Your task to perform on an android device: Open Google Image 0: 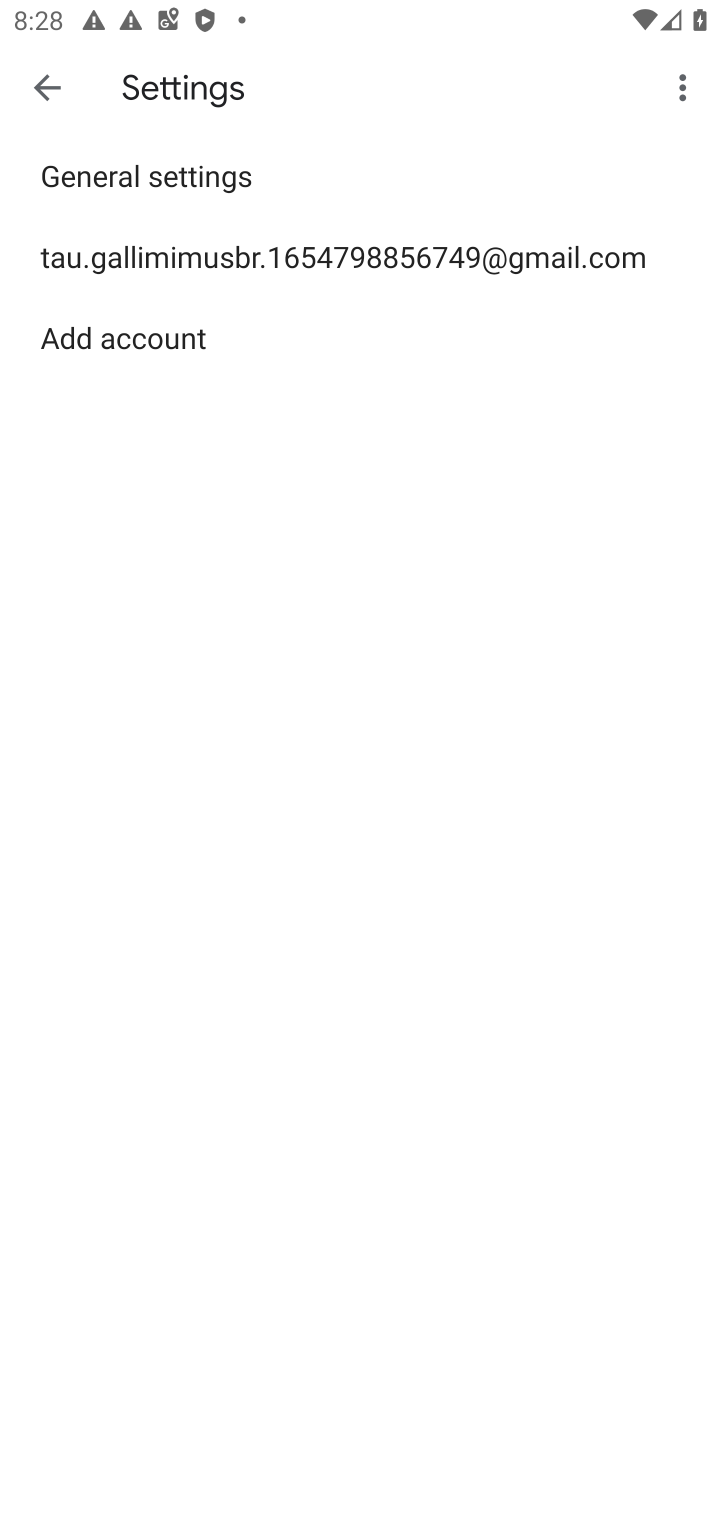
Step 0: press home button
Your task to perform on an android device: Open Google Image 1: 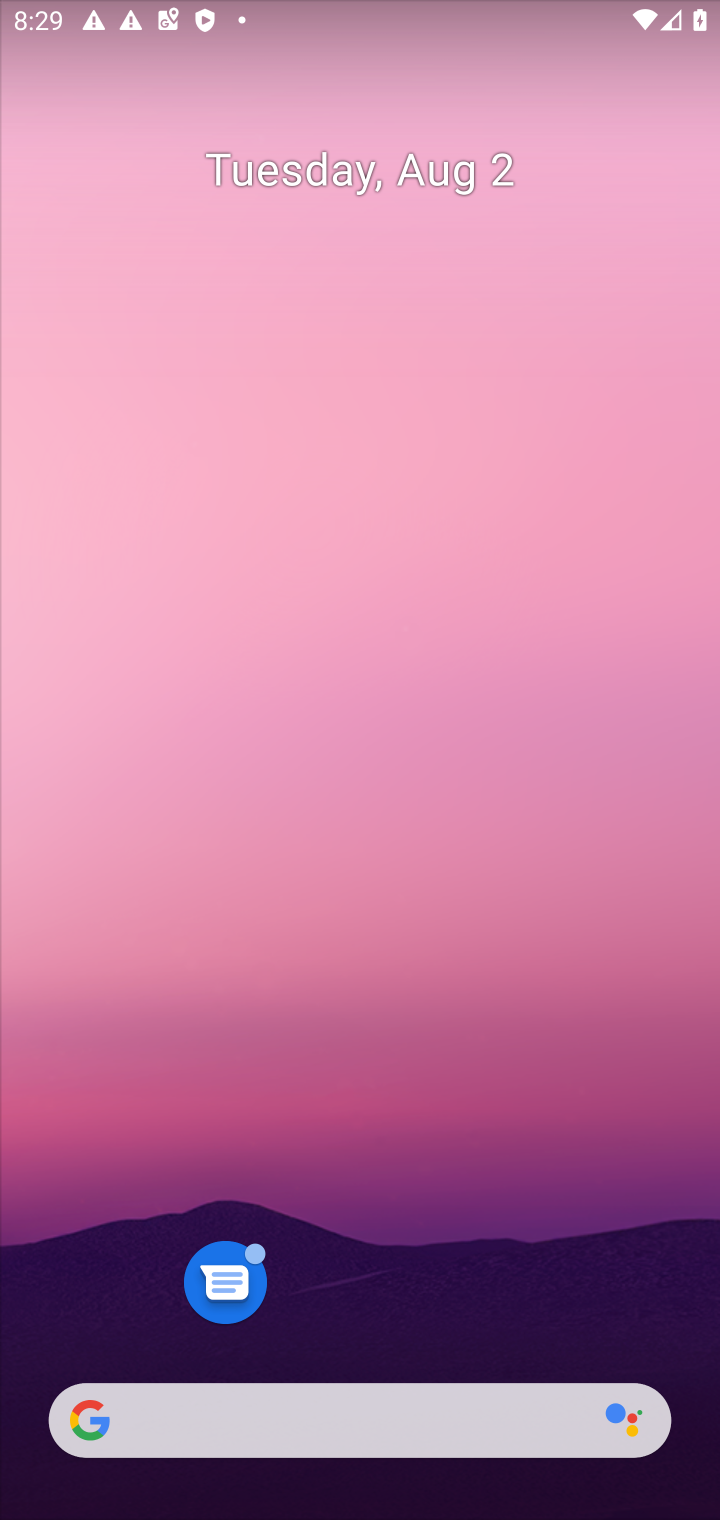
Step 1: drag from (396, 1232) to (540, 91)
Your task to perform on an android device: Open Google Image 2: 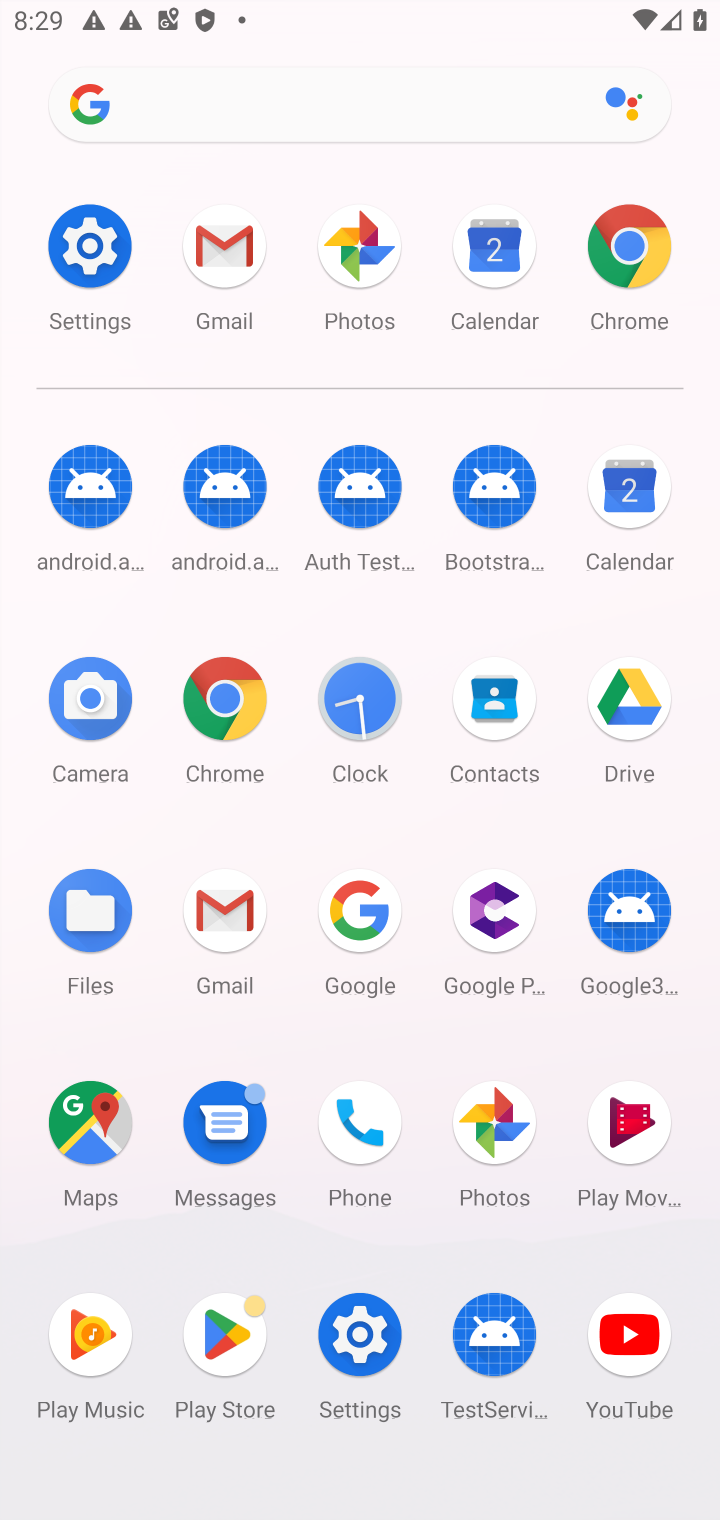
Step 2: click (348, 912)
Your task to perform on an android device: Open Google Image 3: 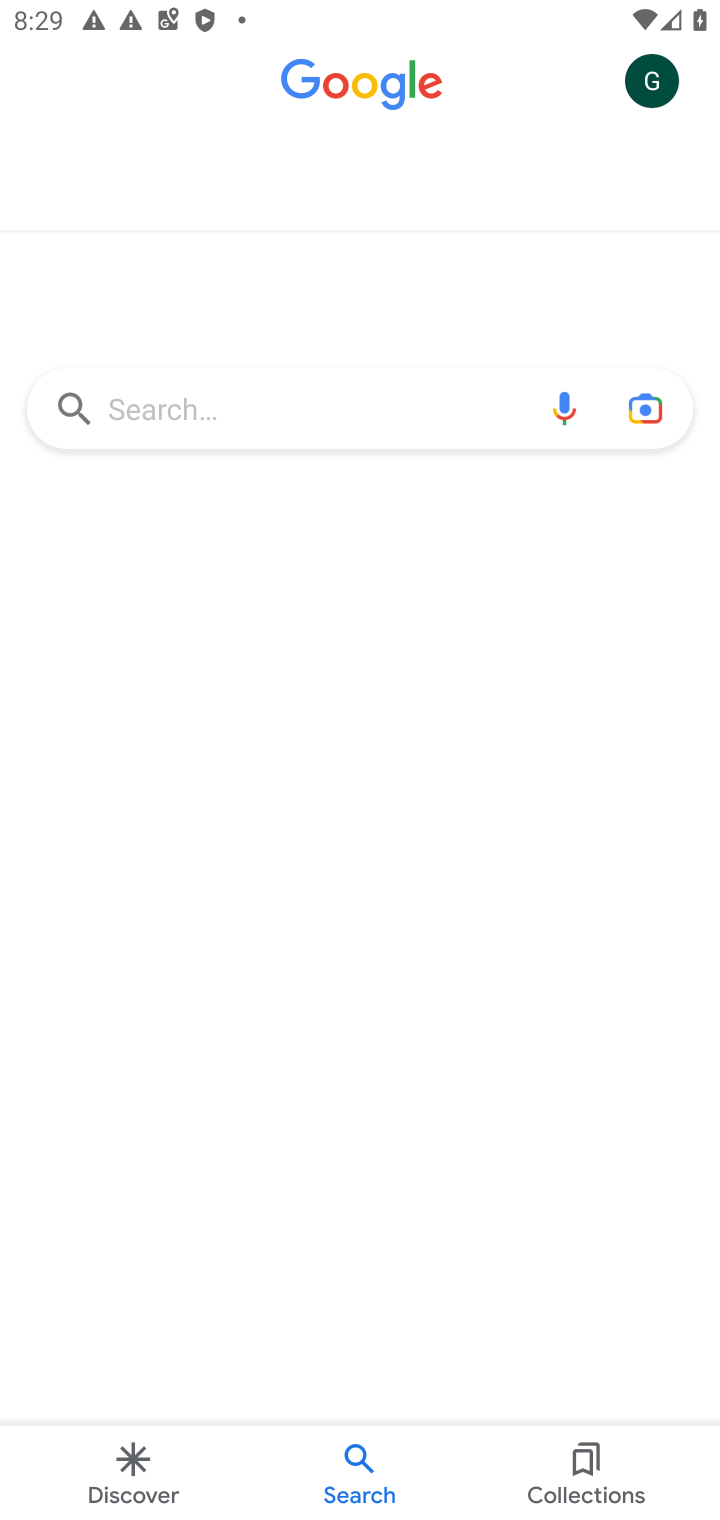
Step 3: task complete